Your task to perform on an android device: turn vacation reply on in the gmail app Image 0: 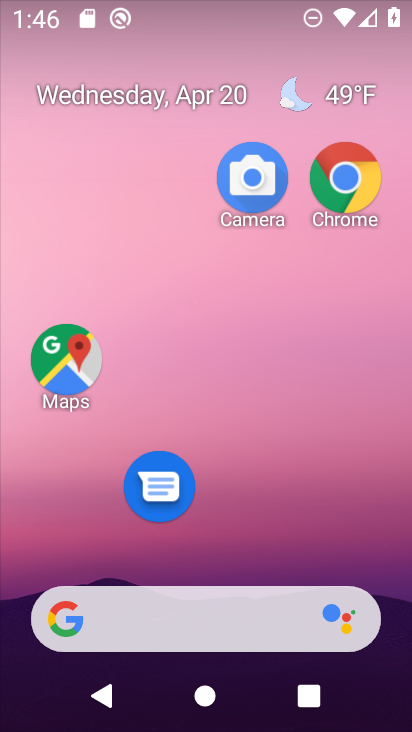
Step 0: drag from (270, 624) to (200, 122)
Your task to perform on an android device: turn vacation reply on in the gmail app Image 1: 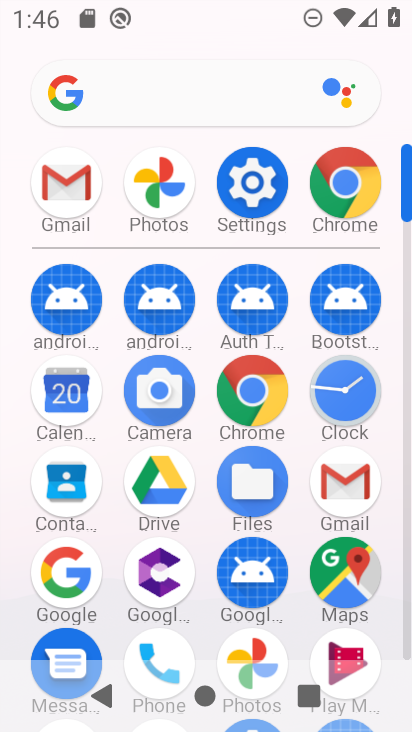
Step 1: click (329, 485)
Your task to perform on an android device: turn vacation reply on in the gmail app Image 2: 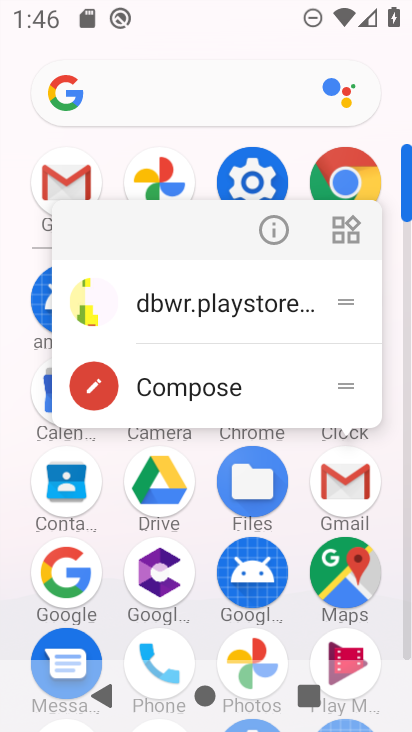
Step 2: click (338, 474)
Your task to perform on an android device: turn vacation reply on in the gmail app Image 3: 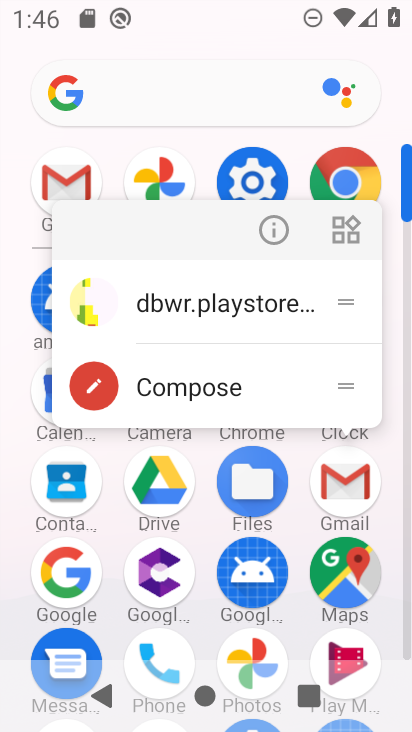
Step 3: click (335, 474)
Your task to perform on an android device: turn vacation reply on in the gmail app Image 4: 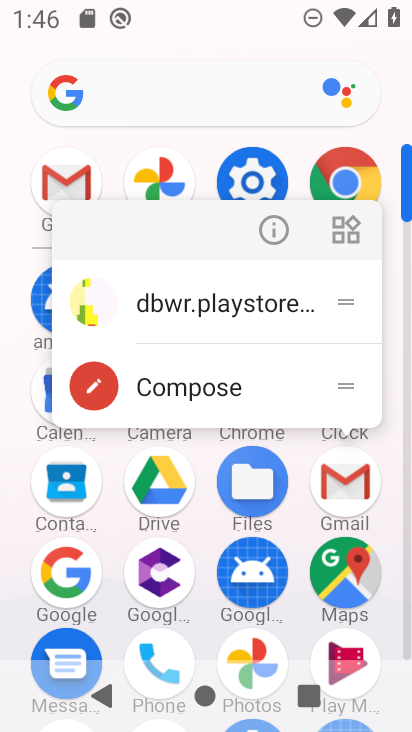
Step 4: click (333, 478)
Your task to perform on an android device: turn vacation reply on in the gmail app Image 5: 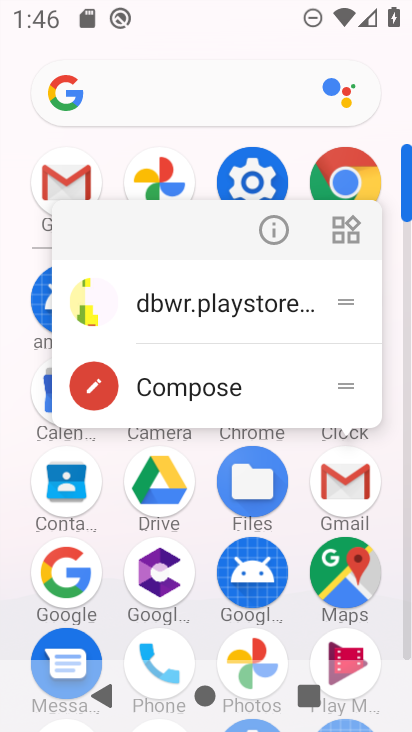
Step 5: click (333, 478)
Your task to perform on an android device: turn vacation reply on in the gmail app Image 6: 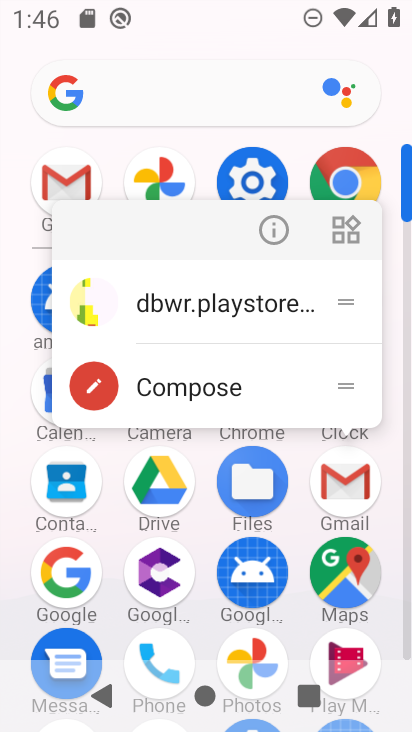
Step 6: click (333, 478)
Your task to perform on an android device: turn vacation reply on in the gmail app Image 7: 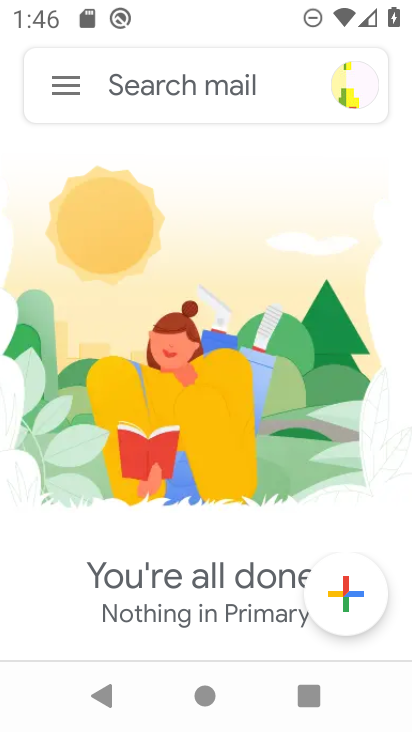
Step 7: click (52, 89)
Your task to perform on an android device: turn vacation reply on in the gmail app Image 8: 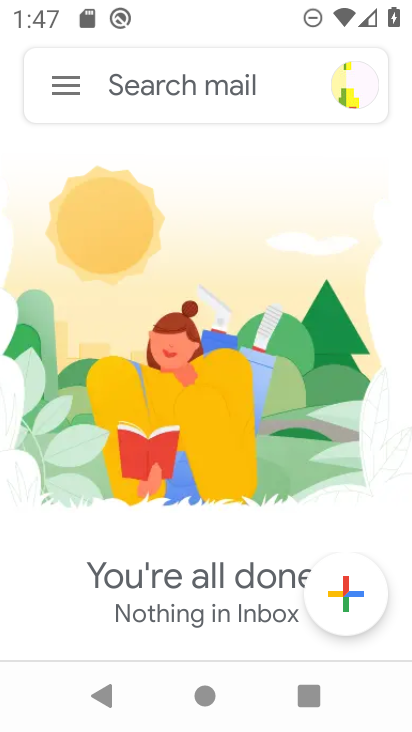
Step 8: click (55, 89)
Your task to perform on an android device: turn vacation reply on in the gmail app Image 9: 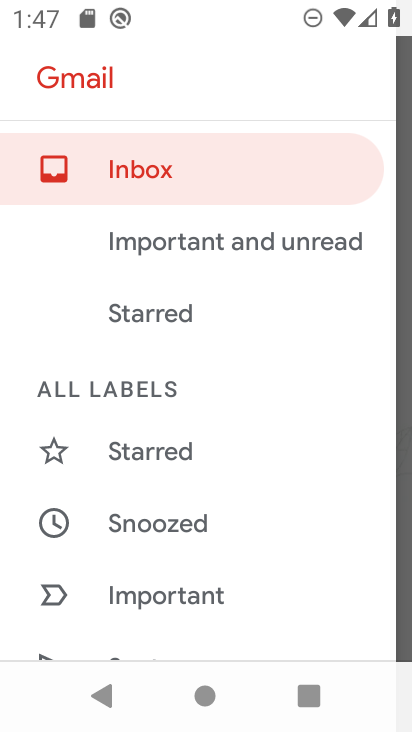
Step 9: drag from (140, 539) to (154, 242)
Your task to perform on an android device: turn vacation reply on in the gmail app Image 10: 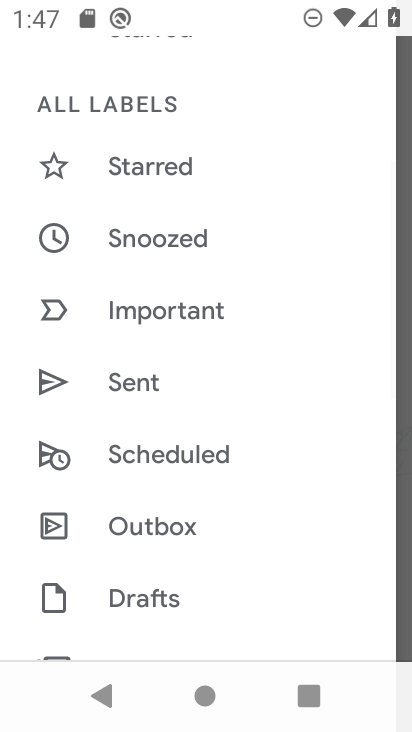
Step 10: drag from (180, 499) to (134, 142)
Your task to perform on an android device: turn vacation reply on in the gmail app Image 11: 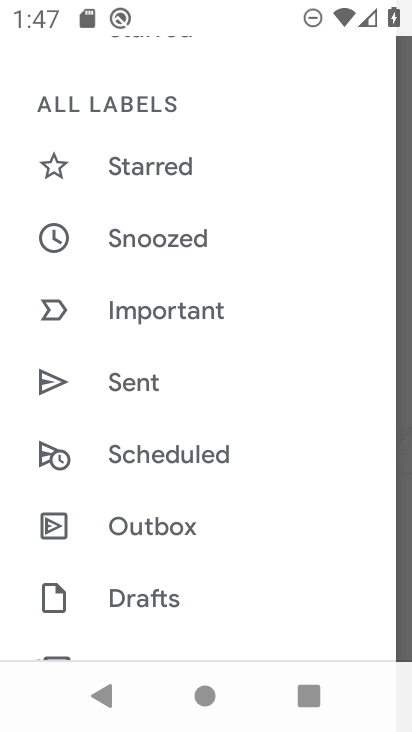
Step 11: drag from (141, 546) to (281, 251)
Your task to perform on an android device: turn vacation reply on in the gmail app Image 12: 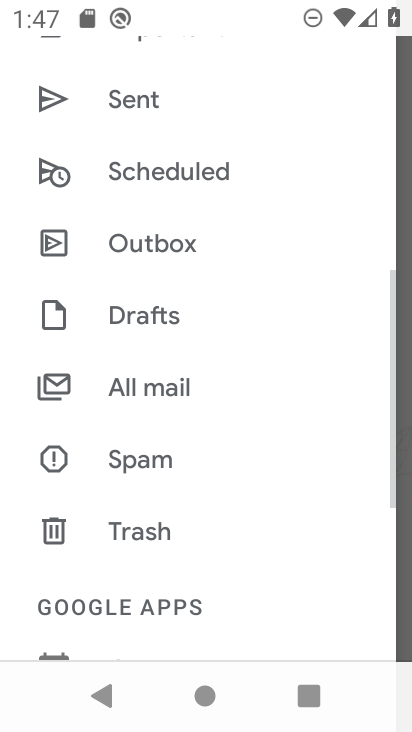
Step 12: drag from (137, 559) to (226, 294)
Your task to perform on an android device: turn vacation reply on in the gmail app Image 13: 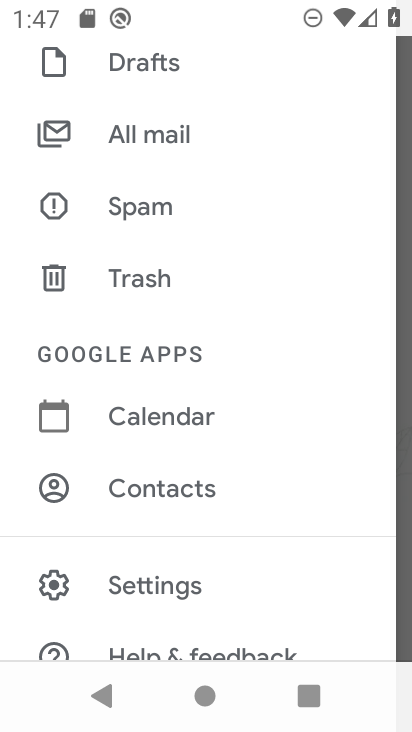
Step 13: click (135, 578)
Your task to perform on an android device: turn vacation reply on in the gmail app Image 14: 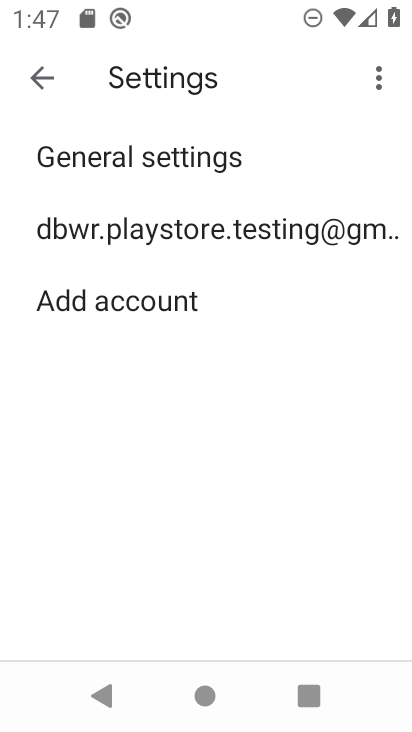
Step 14: click (171, 228)
Your task to perform on an android device: turn vacation reply on in the gmail app Image 15: 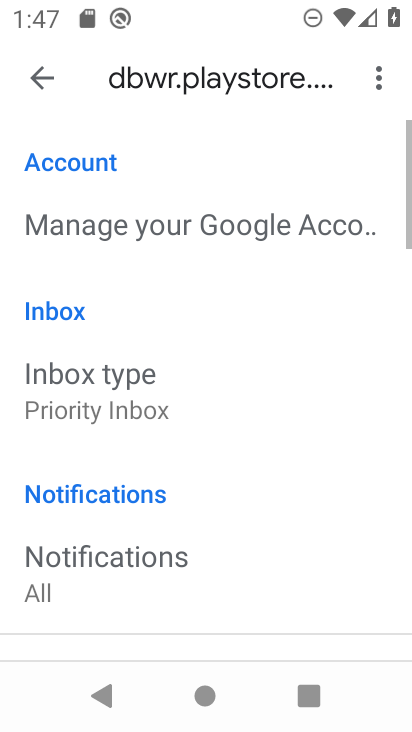
Step 15: drag from (171, 432) to (158, 169)
Your task to perform on an android device: turn vacation reply on in the gmail app Image 16: 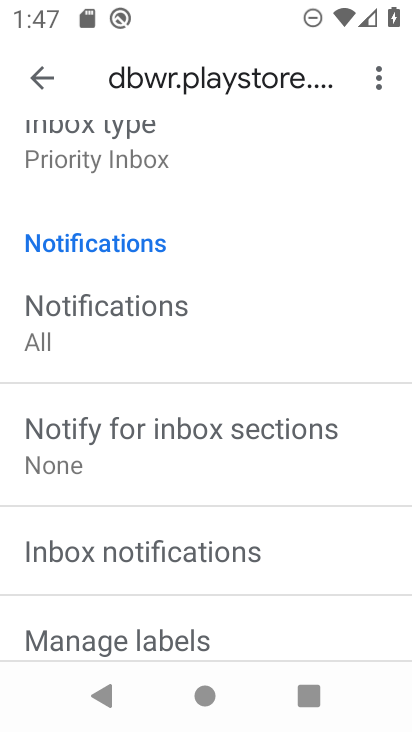
Step 16: drag from (183, 555) to (258, 168)
Your task to perform on an android device: turn vacation reply on in the gmail app Image 17: 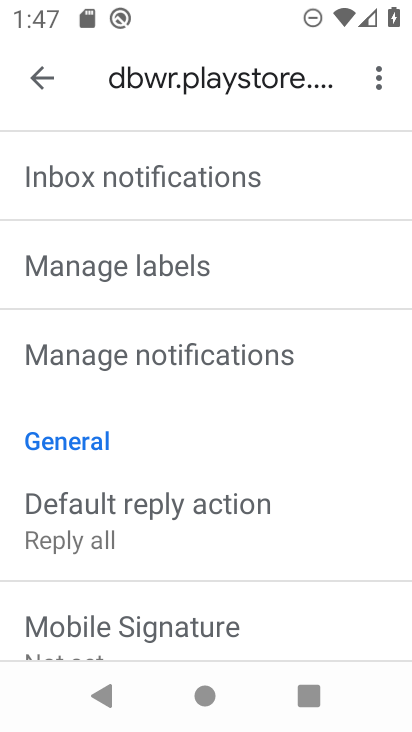
Step 17: drag from (192, 557) to (293, 191)
Your task to perform on an android device: turn vacation reply on in the gmail app Image 18: 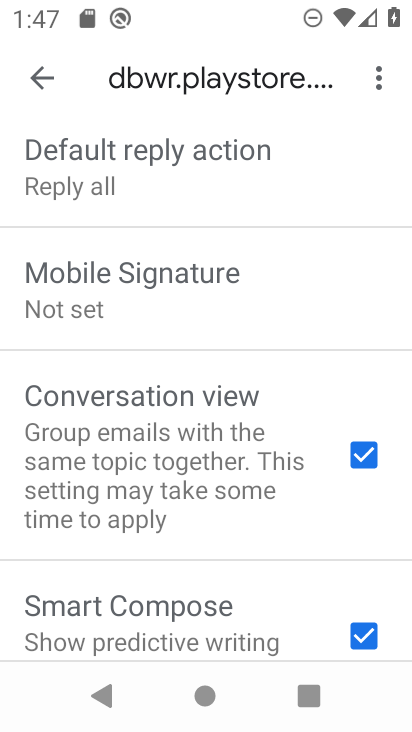
Step 18: drag from (230, 469) to (260, 170)
Your task to perform on an android device: turn vacation reply on in the gmail app Image 19: 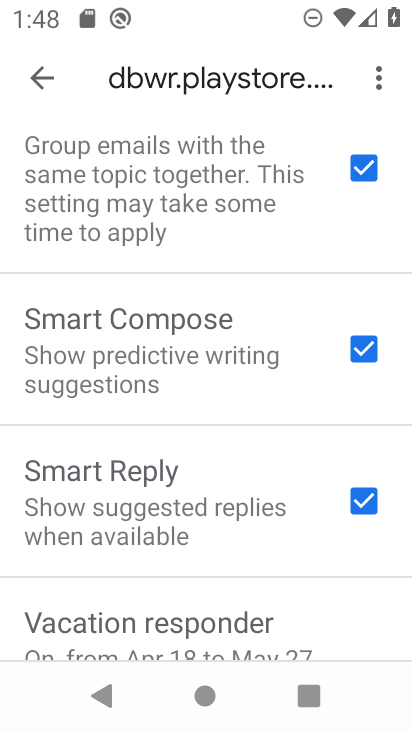
Step 19: click (203, 611)
Your task to perform on an android device: turn vacation reply on in the gmail app Image 20: 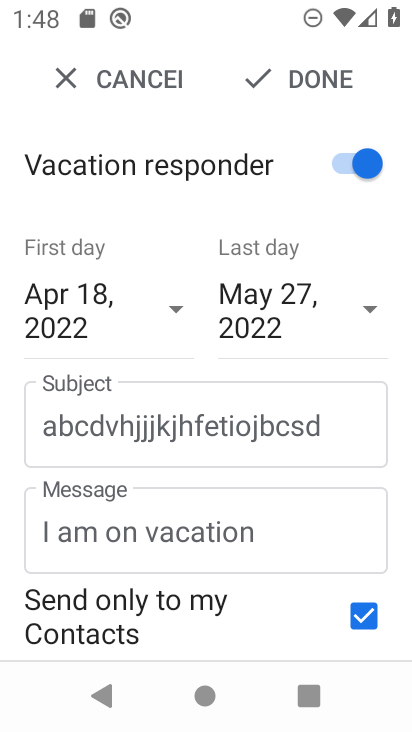
Step 20: click (203, 576)
Your task to perform on an android device: turn vacation reply on in the gmail app Image 21: 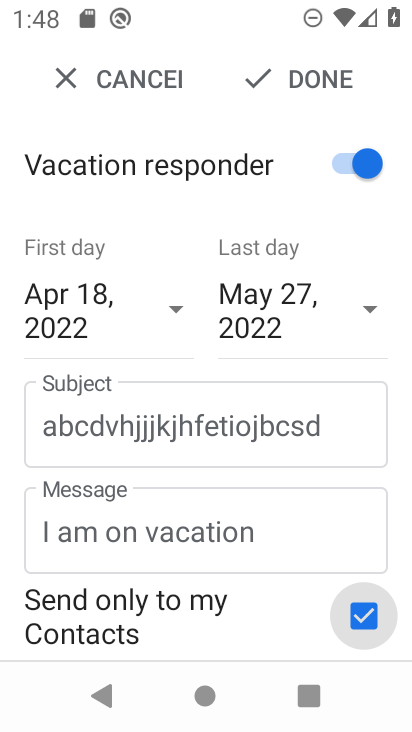
Step 21: task complete